Your task to perform on an android device: Search for pizza restaurants on Maps Image 0: 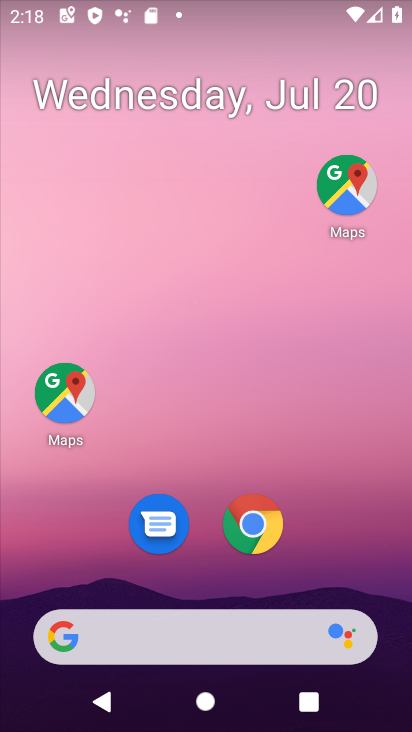
Step 0: click (82, 389)
Your task to perform on an android device: Search for pizza restaurants on Maps Image 1: 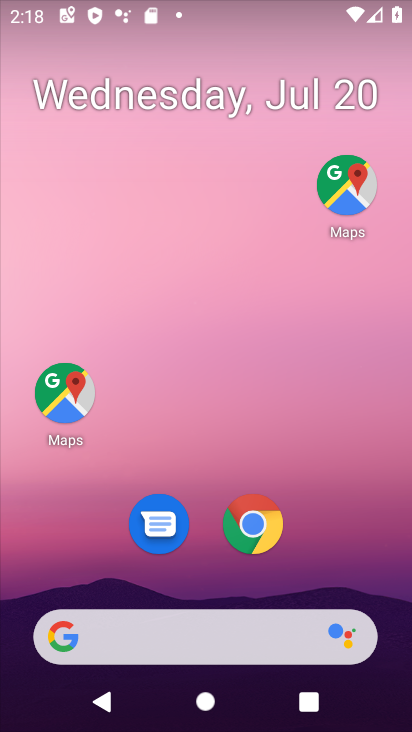
Step 1: click (61, 387)
Your task to perform on an android device: Search for pizza restaurants on Maps Image 2: 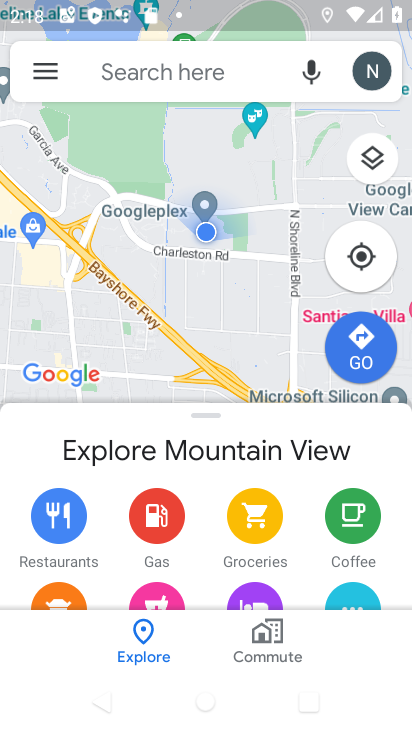
Step 2: click (162, 71)
Your task to perform on an android device: Search for pizza restaurants on Maps Image 3: 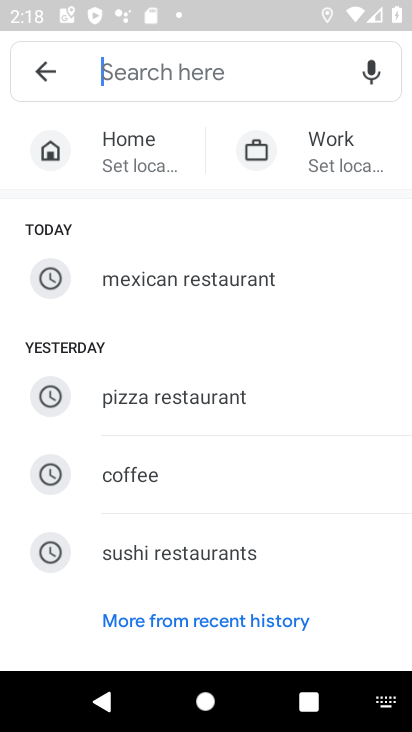
Step 3: click (183, 389)
Your task to perform on an android device: Search for pizza restaurants on Maps Image 4: 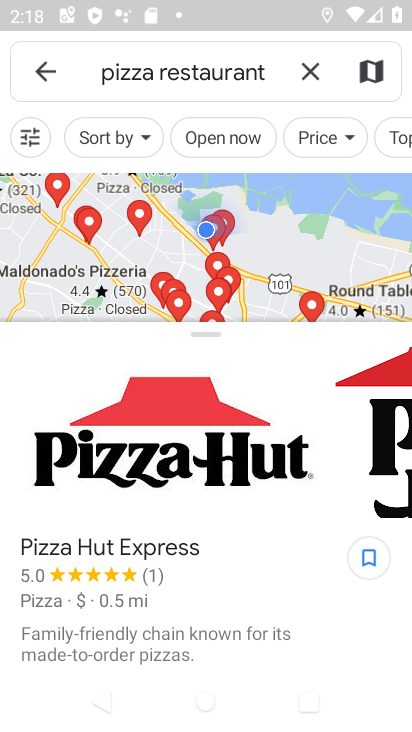
Step 4: task complete